Your task to perform on an android device: Open Google Chrome and open the bookmarks view Image 0: 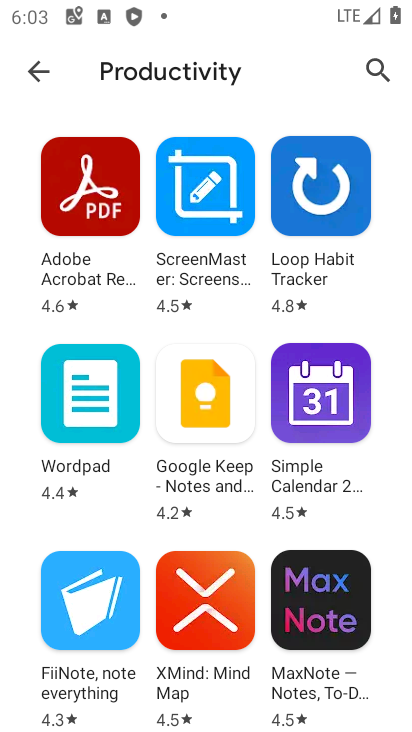
Step 0: press home button
Your task to perform on an android device: Open Google Chrome and open the bookmarks view Image 1: 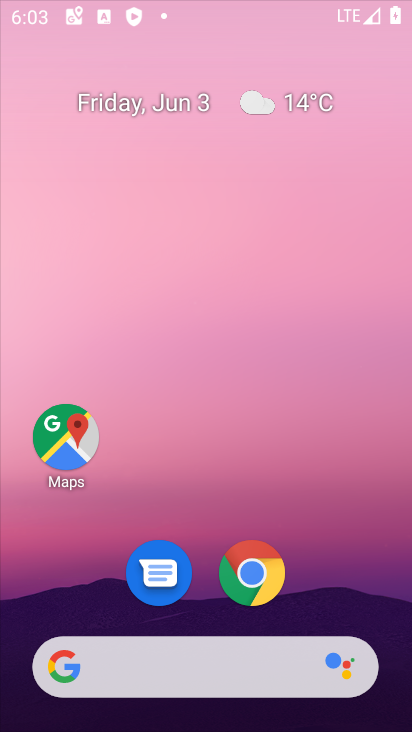
Step 1: drag from (323, 639) to (365, 21)
Your task to perform on an android device: Open Google Chrome and open the bookmarks view Image 2: 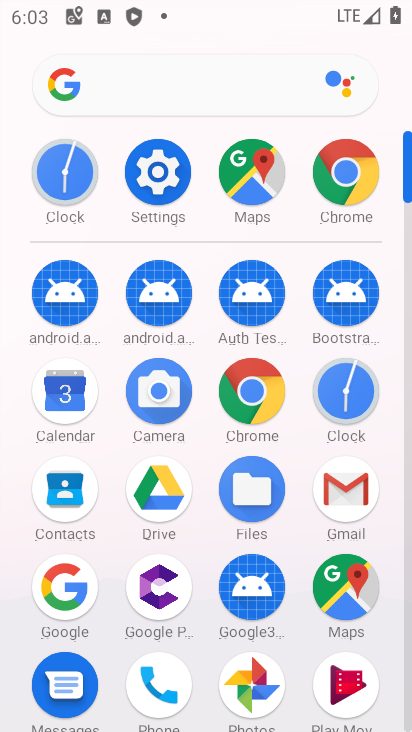
Step 2: click (264, 400)
Your task to perform on an android device: Open Google Chrome and open the bookmarks view Image 3: 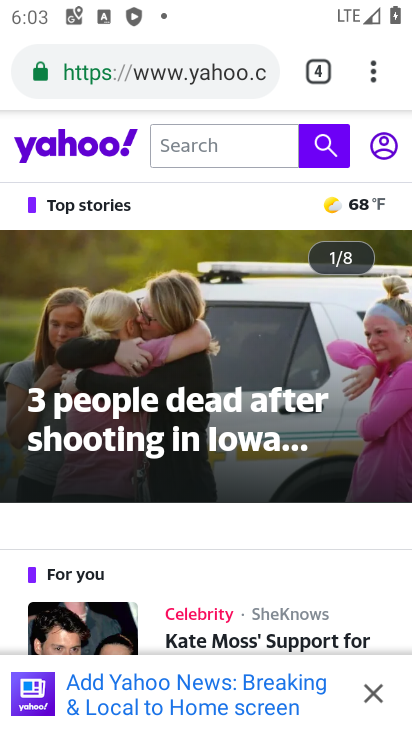
Step 3: task complete